Your task to perform on an android device: What's on my calendar today? Image 0: 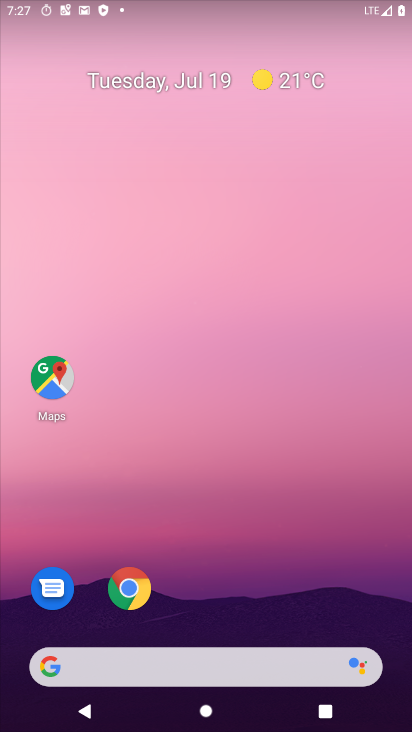
Step 0: drag from (255, 623) to (251, 283)
Your task to perform on an android device: What's on my calendar today? Image 1: 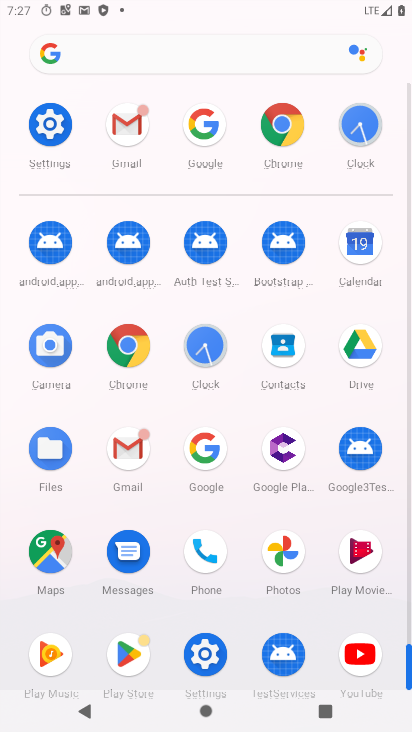
Step 1: click (373, 246)
Your task to perform on an android device: What's on my calendar today? Image 2: 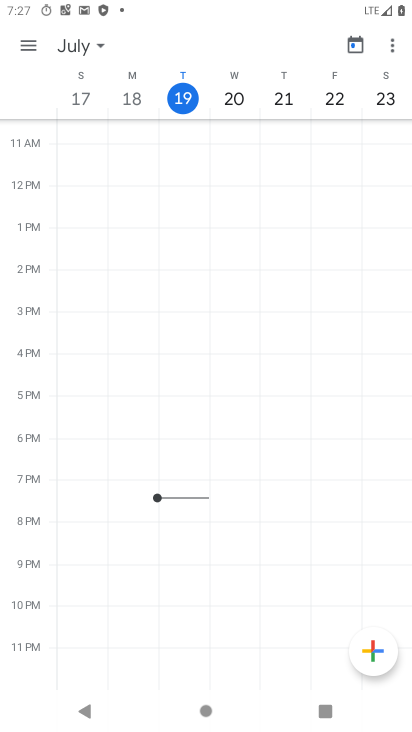
Step 2: click (27, 48)
Your task to perform on an android device: What's on my calendar today? Image 3: 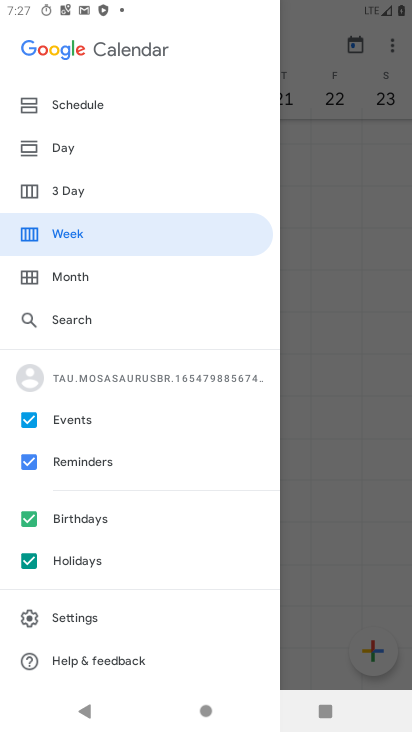
Step 3: click (92, 159)
Your task to perform on an android device: What's on my calendar today? Image 4: 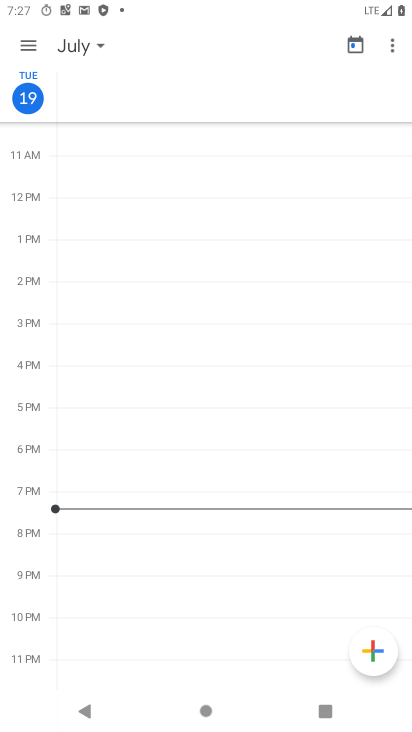
Step 4: task complete